Your task to perform on an android device: Open Amazon Image 0: 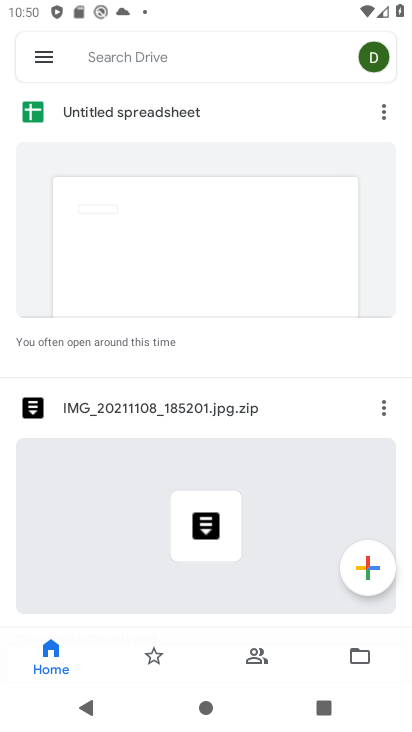
Step 0: press home button
Your task to perform on an android device: Open Amazon Image 1: 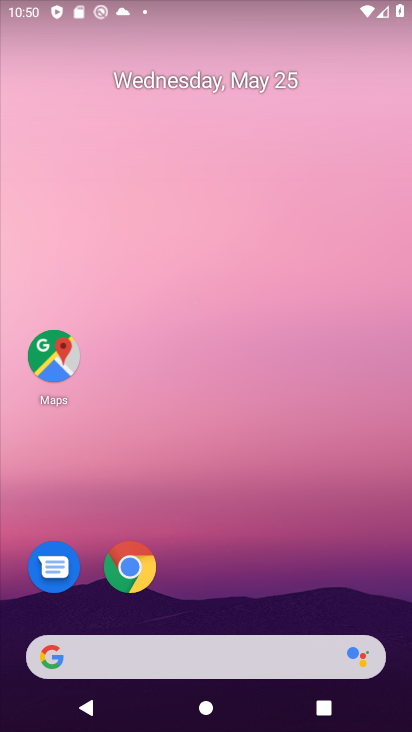
Step 1: click (124, 565)
Your task to perform on an android device: Open Amazon Image 2: 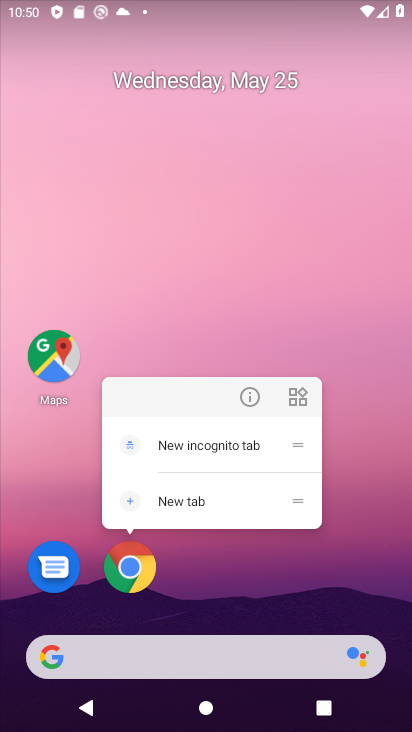
Step 2: click (127, 567)
Your task to perform on an android device: Open Amazon Image 3: 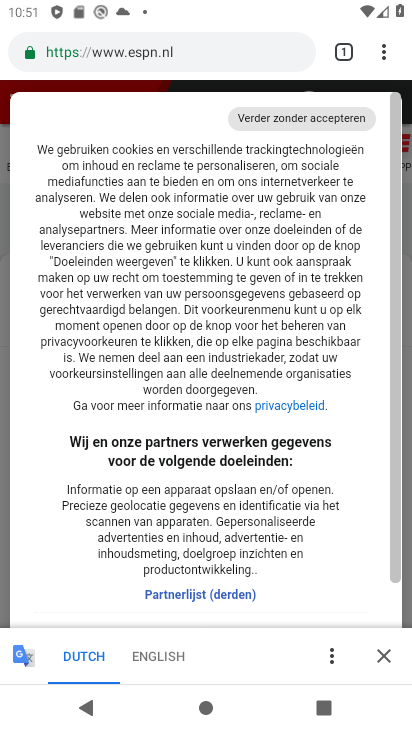
Step 3: click (170, 44)
Your task to perform on an android device: Open Amazon Image 4: 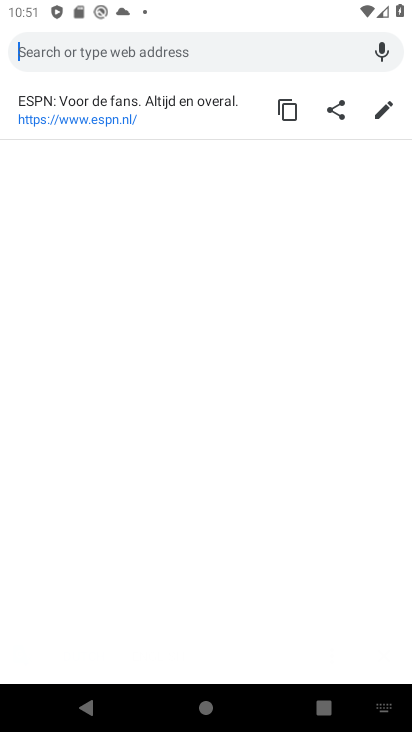
Step 4: type "Amazon"
Your task to perform on an android device: Open Amazon Image 5: 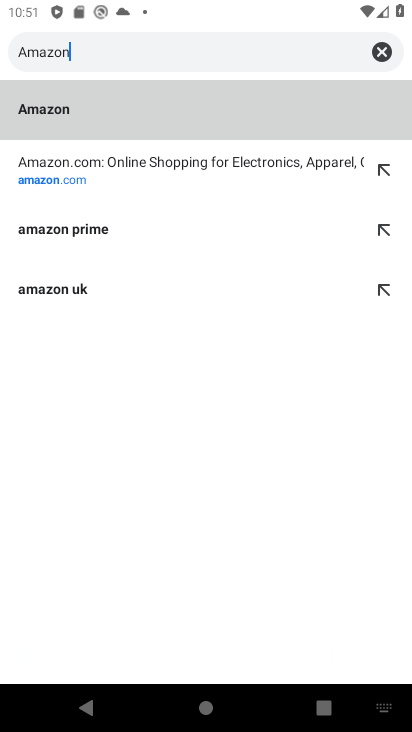
Step 5: click (105, 105)
Your task to perform on an android device: Open Amazon Image 6: 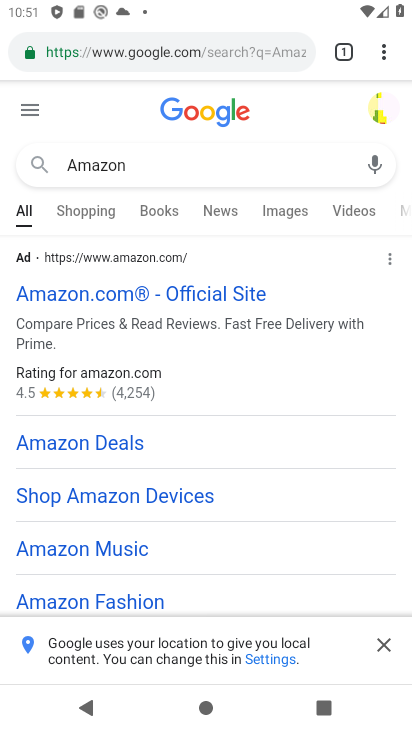
Step 6: task complete